Your task to perform on an android device: turn off translation in the chrome app Image 0: 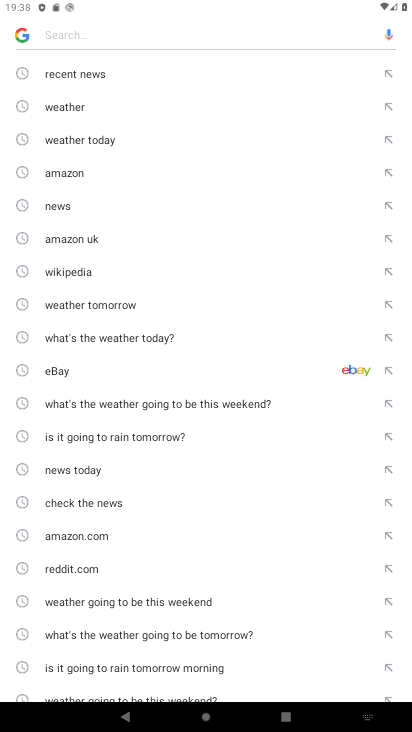
Step 0: press home button
Your task to perform on an android device: turn off translation in the chrome app Image 1: 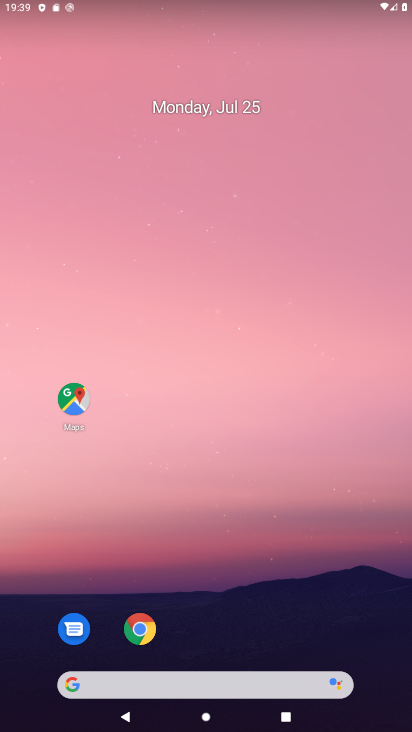
Step 1: click (145, 641)
Your task to perform on an android device: turn off translation in the chrome app Image 2: 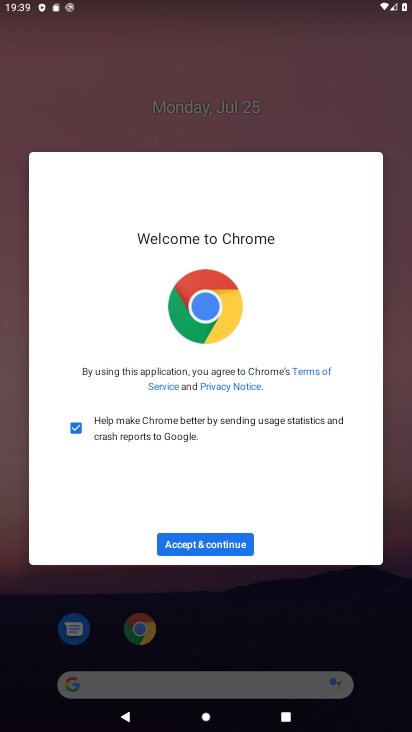
Step 2: click (196, 528)
Your task to perform on an android device: turn off translation in the chrome app Image 3: 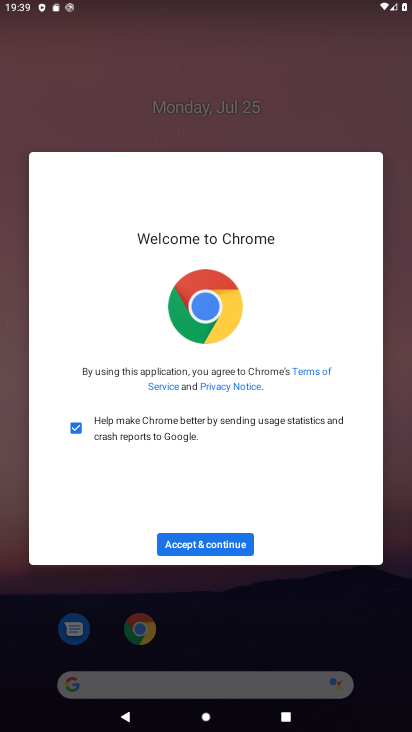
Step 3: click (196, 542)
Your task to perform on an android device: turn off translation in the chrome app Image 4: 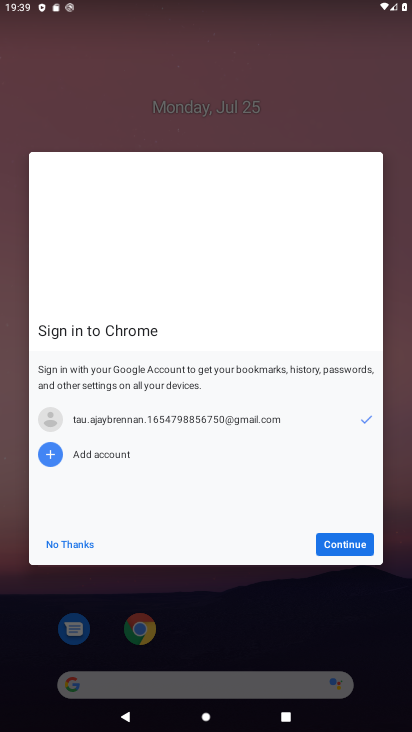
Step 4: click (332, 550)
Your task to perform on an android device: turn off translation in the chrome app Image 5: 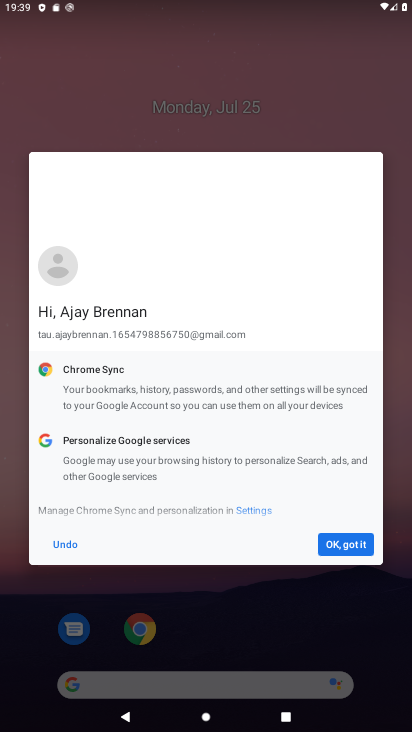
Step 5: click (323, 548)
Your task to perform on an android device: turn off translation in the chrome app Image 6: 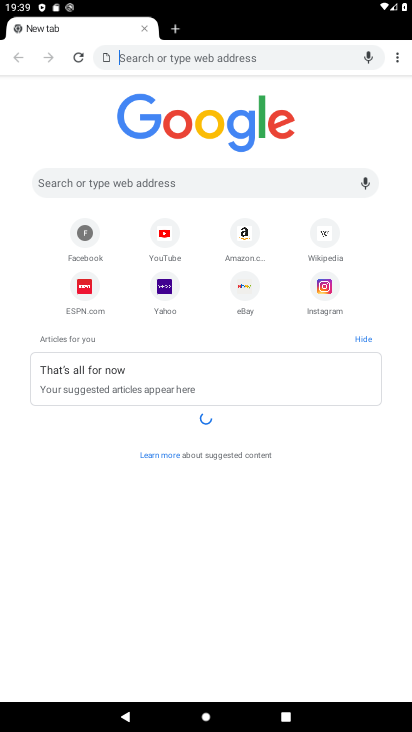
Step 6: click (391, 55)
Your task to perform on an android device: turn off translation in the chrome app Image 7: 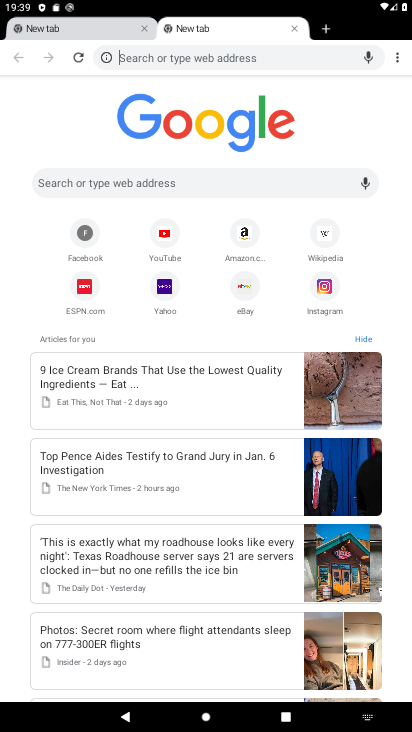
Step 7: click (407, 54)
Your task to perform on an android device: turn off translation in the chrome app Image 8: 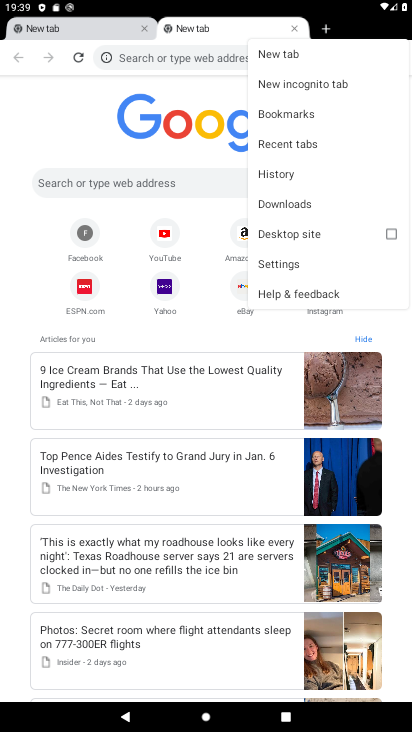
Step 8: click (268, 261)
Your task to perform on an android device: turn off translation in the chrome app Image 9: 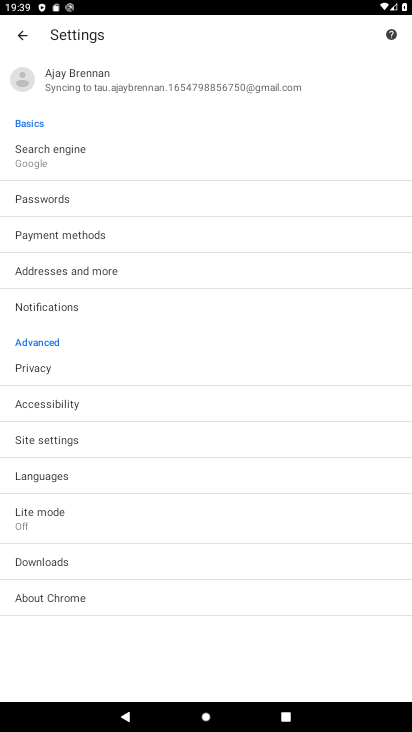
Step 9: click (30, 485)
Your task to perform on an android device: turn off translation in the chrome app Image 10: 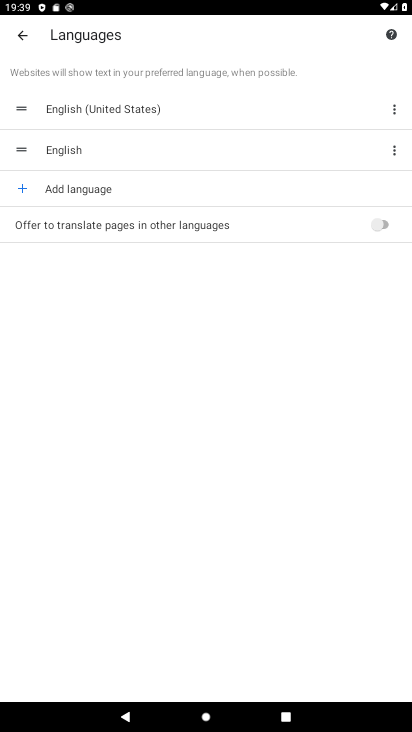
Step 10: task complete